Your task to perform on an android device: toggle javascript in the chrome app Image 0: 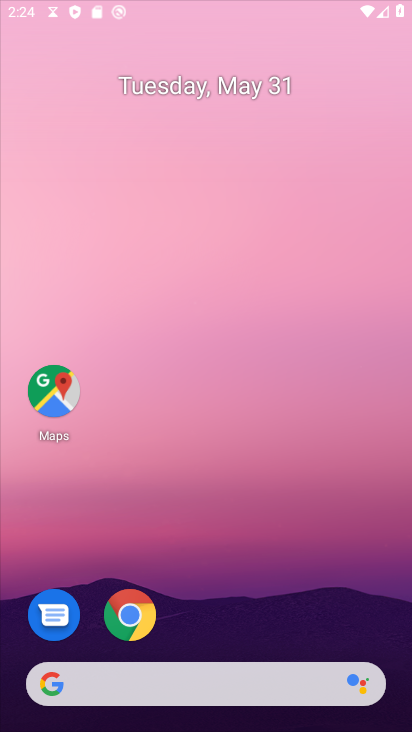
Step 0: press back button
Your task to perform on an android device: toggle javascript in the chrome app Image 1: 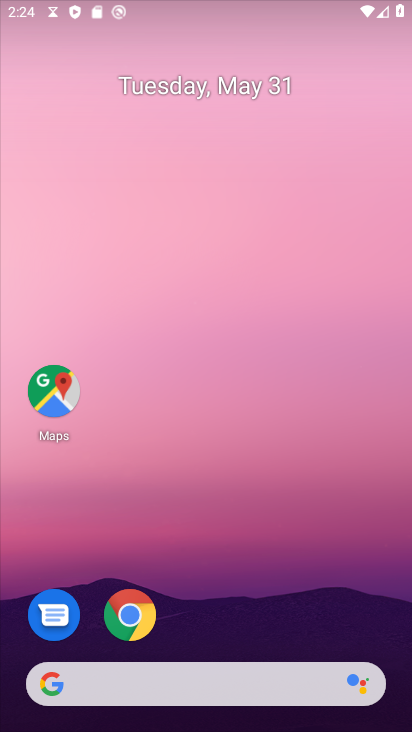
Step 1: drag from (237, 637) to (261, 92)
Your task to perform on an android device: toggle javascript in the chrome app Image 2: 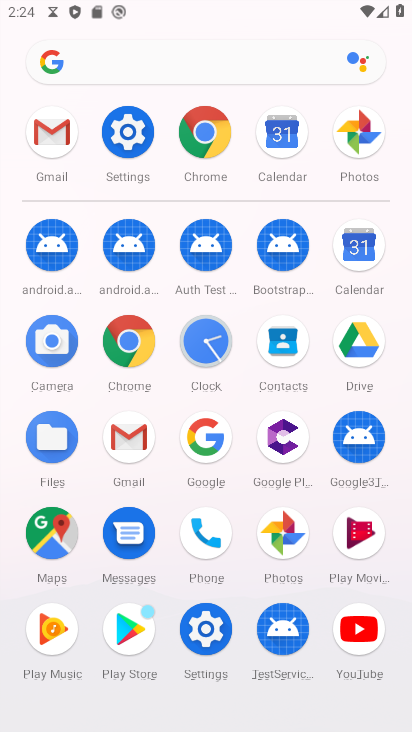
Step 2: click (198, 135)
Your task to perform on an android device: toggle javascript in the chrome app Image 3: 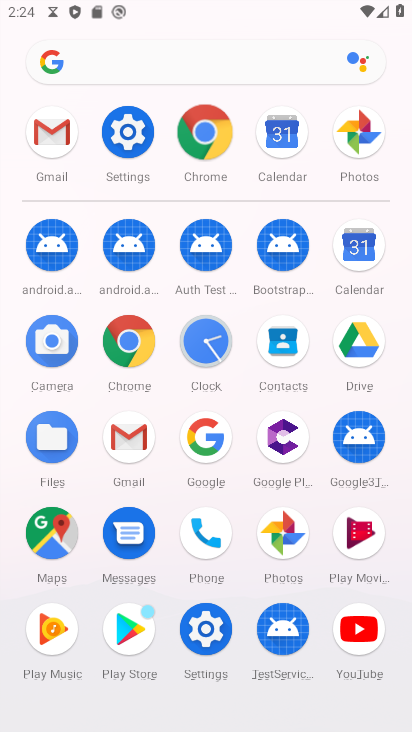
Step 3: click (198, 135)
Your task to perform on an android device: toggle javascript in the chrome app Image 4: 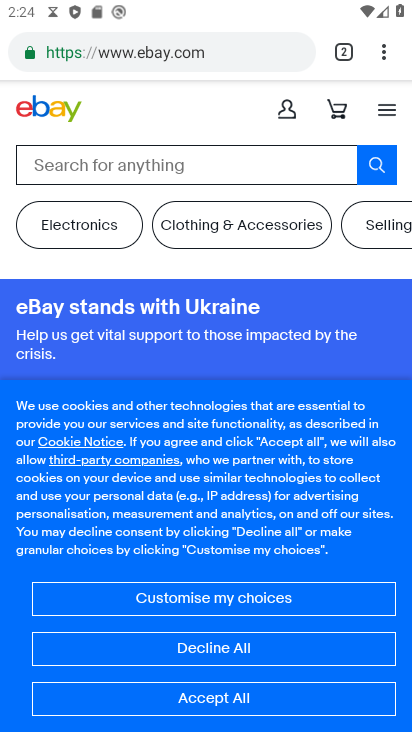
Step 4: click (382, 56)
Your task to perform on an android device: toggle javascript in the chrome app Image 5: 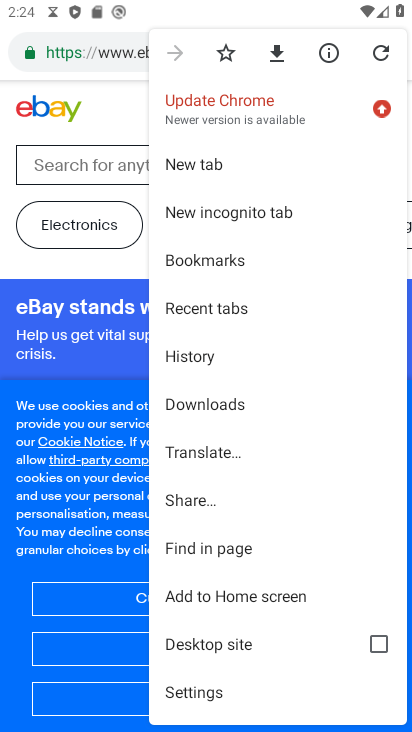
Step 5: click (194, 684)
Your task to perform on an android device: toggle javascript in the chrome app Image 6: 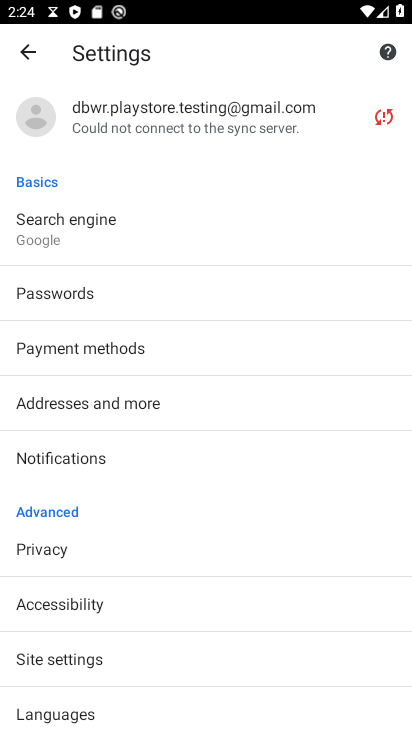
Step 6: drag from (87, 527) to (87, 168)
Your task to perform on an android device: toggle javascript in the chrome app Image 7: 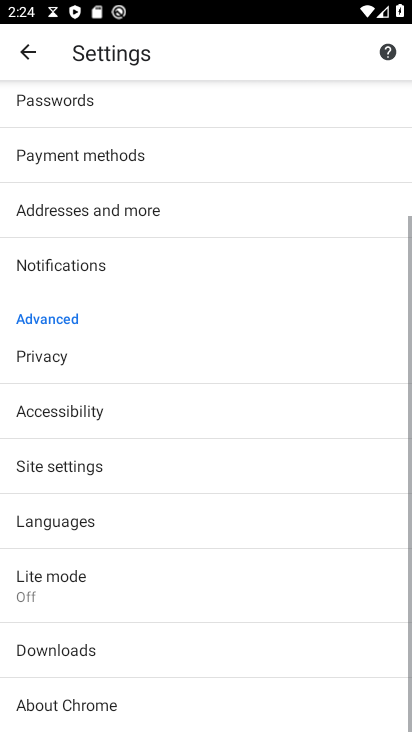
Step 7: drag from (110, 494) to (113, 208)
Your task to perform on an android device: toggle javascript in the chrome app Image 8: 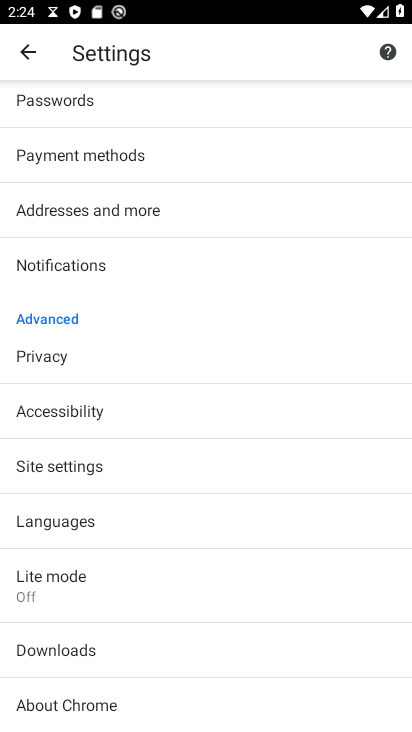
Step 8: click (51, 468)
Your task to perform on an android device: toggle javascript in the chrome app Image 9: 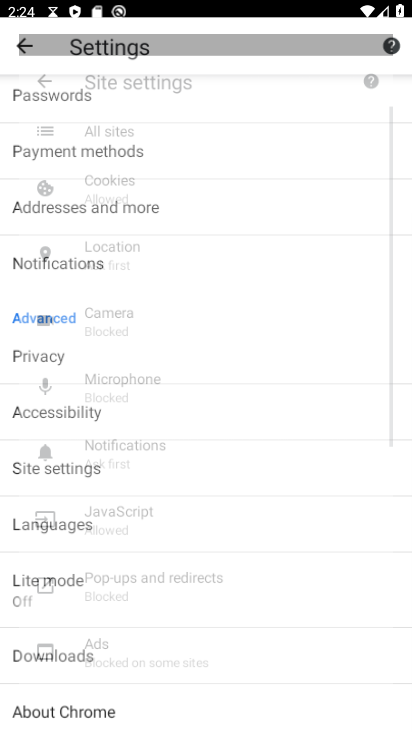
Step 9: click (51, 468)
Your task to perform on an android device: toggle javascript in the chrome app Image 10: 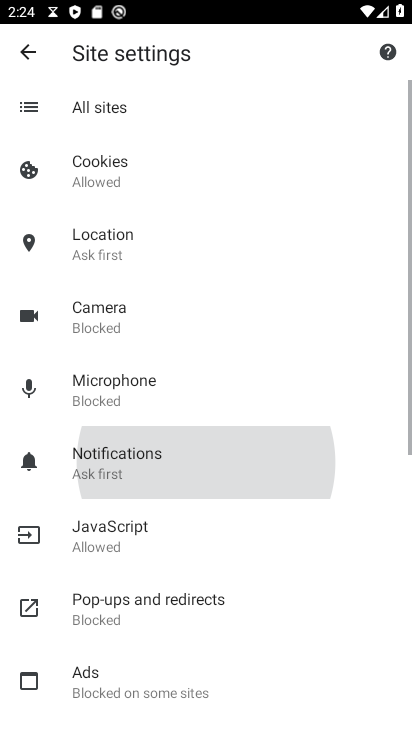
Step 10: click (51, 468)
Your task to perform on an android device: toggle javascript in the chrome app Image 11: 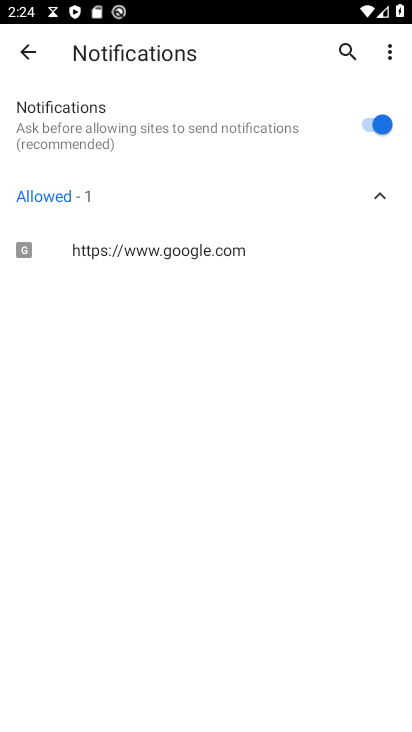
Step 11: click (26, 55)
Your task to perform on an android device: toggle javascript in the chrome app Image 12: 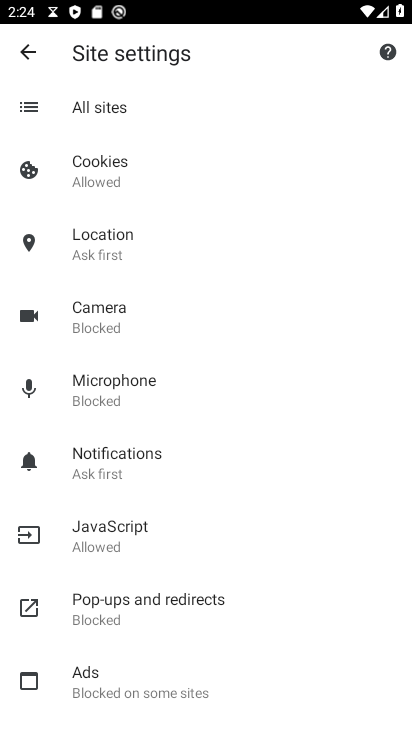
Step 12: click (104, 526)
Your task to perform on an android device: toggle javascript in the chrome app Image 13: 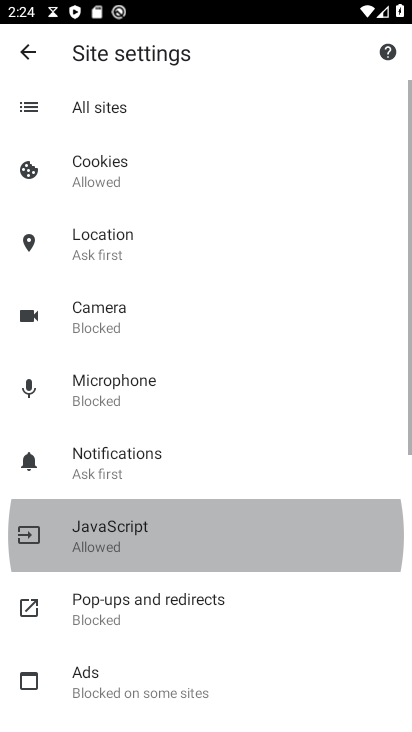
Step 13: click (104, 526)
Your task to perform on an android device: toggle javascript in the chrome app Image 14: 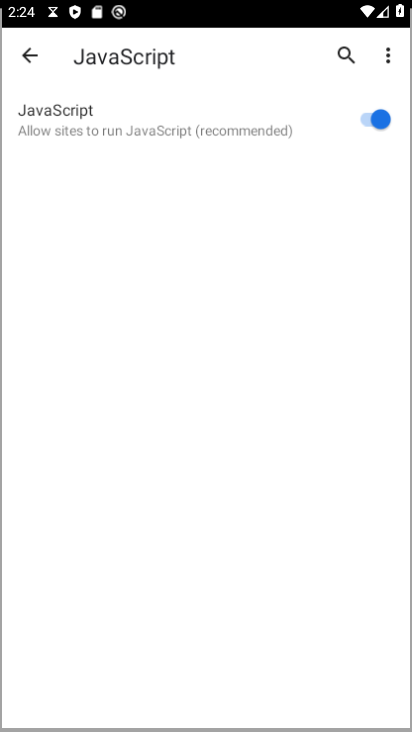
Step 14: click (104, 526)
Your task to perform on an android device: toggle javascript in the chrome app Image 15: 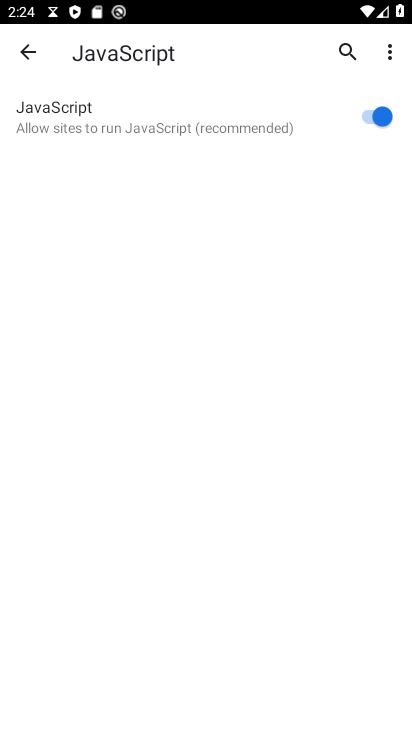
Step 15: task complete